Your task to perform on an android device: turn off wifi Image 0: 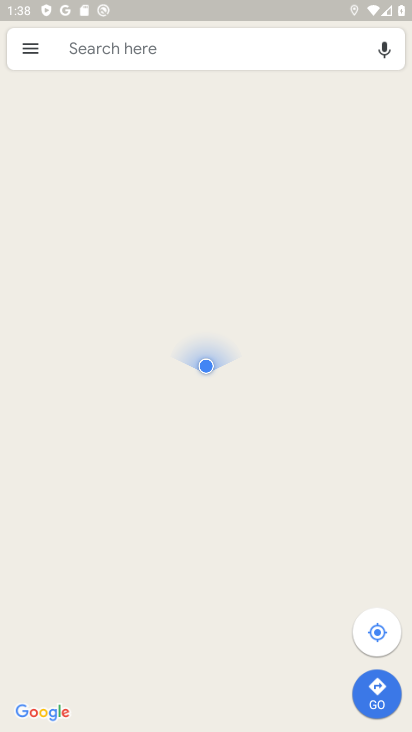
Step 0: press home button
Your task to perform on an android device: turn off wifi Image 1: 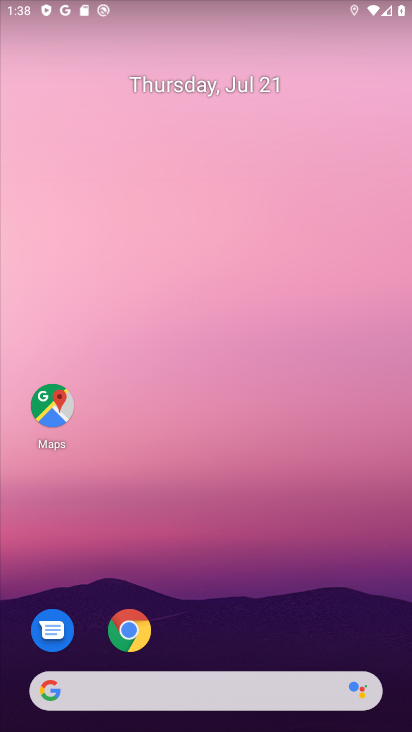
Step 1: drag from (239, 15) to (245, 329)
Your task to perform on an android device: turn off wifi Image 2: 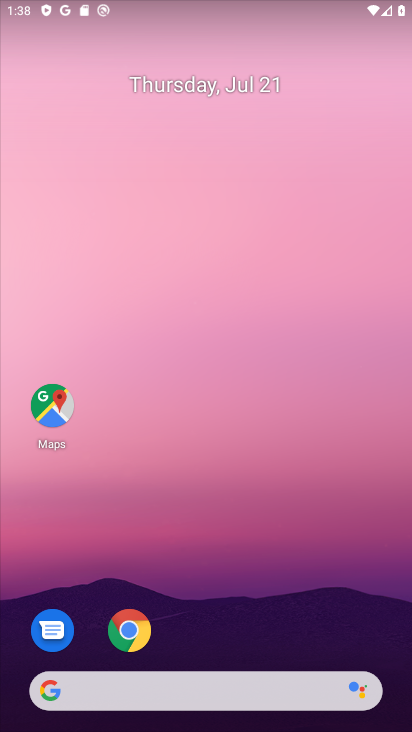
Step 2: drag from (138, 81) to (97, 420)
Your task to perform on an android device: turn off wifi Image 3: 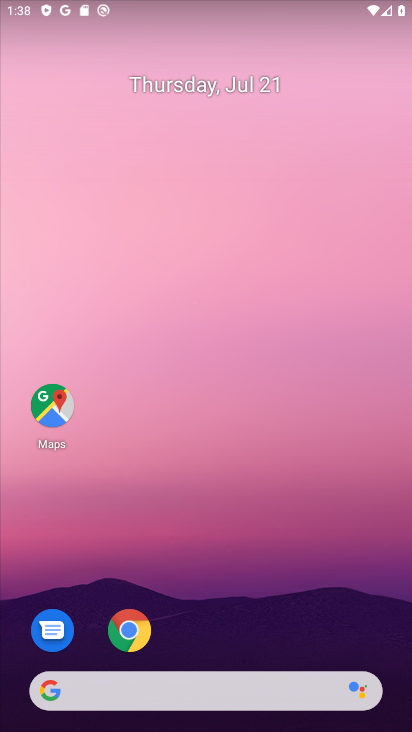
Step 3: drag from (212, 14) to (150, 476)
Your task to perform on an android device: turn off wifi Image 4: 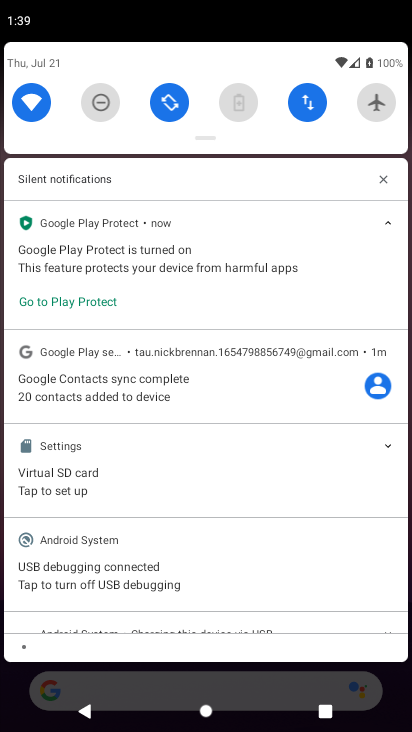
Step 4: click (33, 97)
Your task to perform on an android device: turn off wifi Image 5: 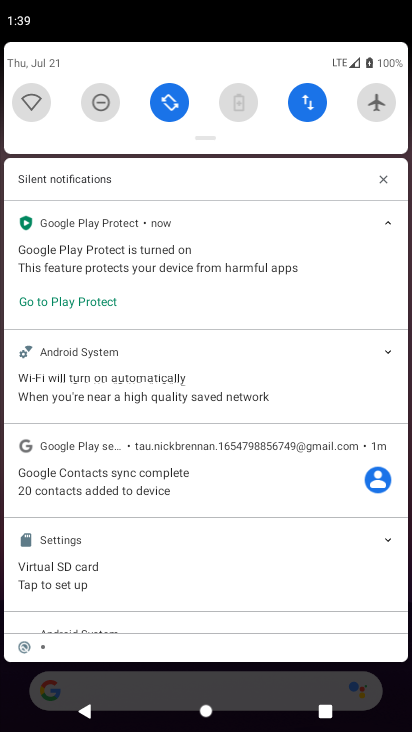
Step 5: task complete